Your task to perform on an android device: What's the weather going to be this weekend? Image 0: 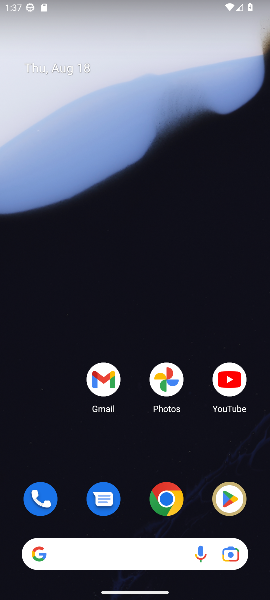
Step 0: drag from (131, 513) to (119, 94)
Your task to perform on an android device: What's the weather going to be this weekend? Image 1: 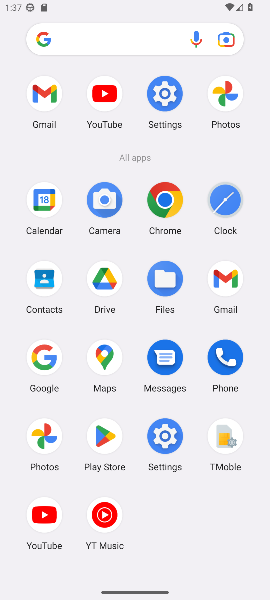
Step 1: click (45, 363)
Your task to perform on an android device: What's the weather going to be this weekend? Image 2: 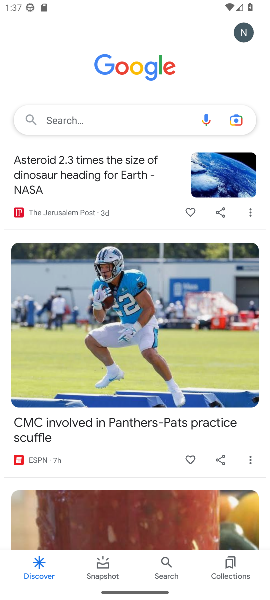
Step 2: click (52, 119)
Your task to perform on an android device: What's the weather going to be this weekend? Image 3: 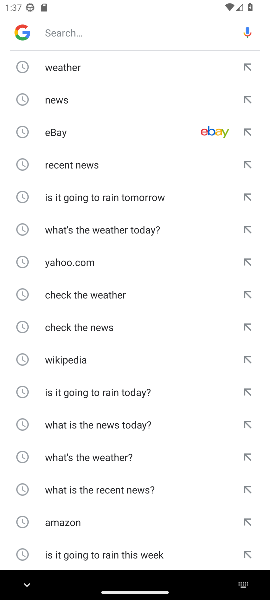
Step 3: click (57, 66)
Your task to perform on an android device: What's the weather going to be this weekend? Image 4: 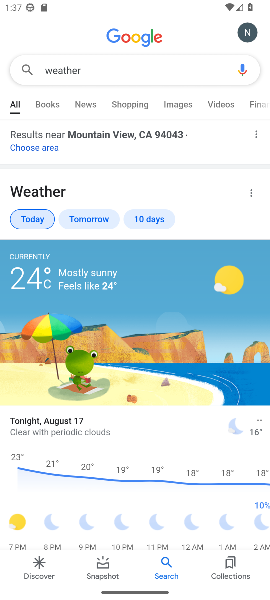
Step 4: click (148, 213)
Your task to perform on an android device: What's the weather going to be this weekend? Image 5: 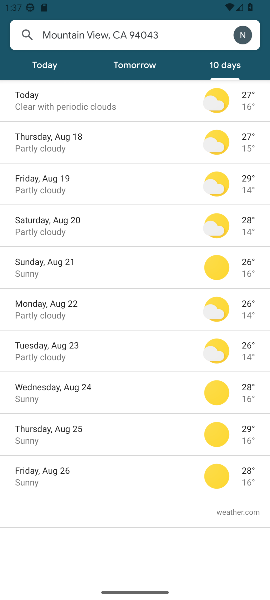
Step 5: click (152, 213)
Your task to perform on an android device: What's the weather going to be this weekend? Image 6: 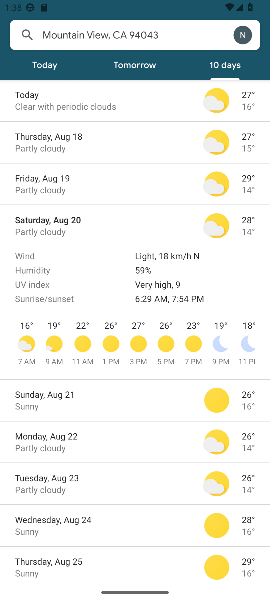
Step 6: task complete